Your task to perform on an android device: turn on translation in the chrome app Image 0: 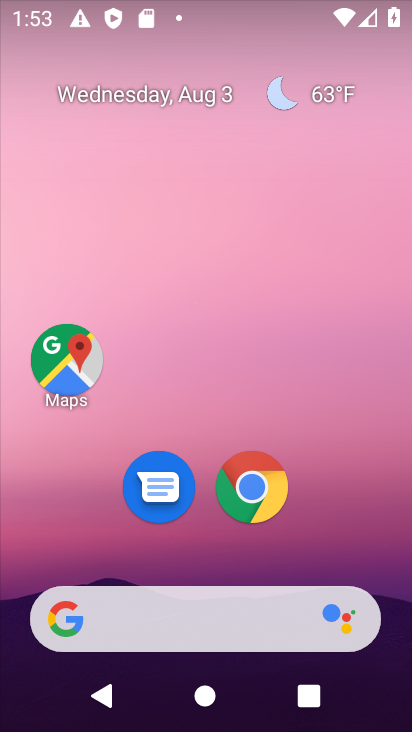
Step 0: click (260, 476)
Your task to perform on an android device: turn on translation in the chrome app Image 1: 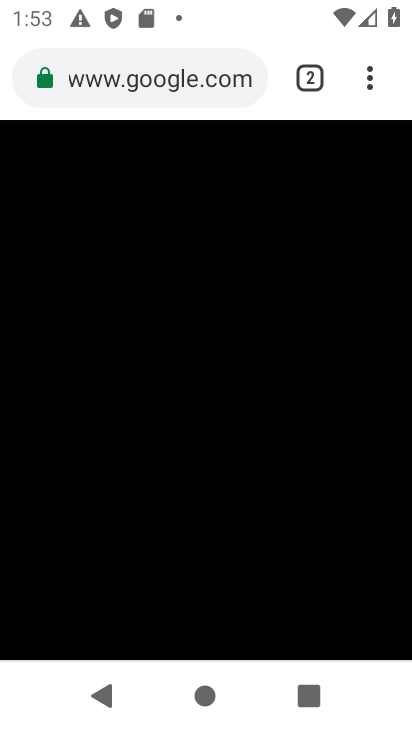
Step 1: drag from (369, 78) to (216, 539)
Your task to perform on an android device: turn on translation in the chrome app Image 2: 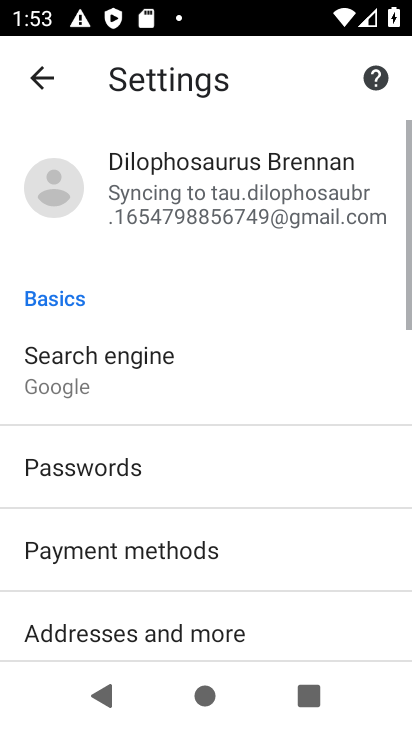
Step 2: drag from (229, 592) to (235, 124)
Your task to perform on an android device: turn on translation in the chrome app Image 3: 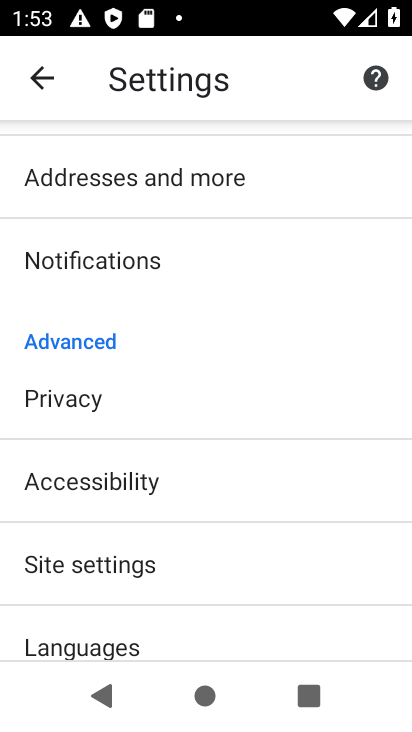
Step 3: click (71, 639)
Your task to perform on an android device: turn on translation in the chrome app Image 4: 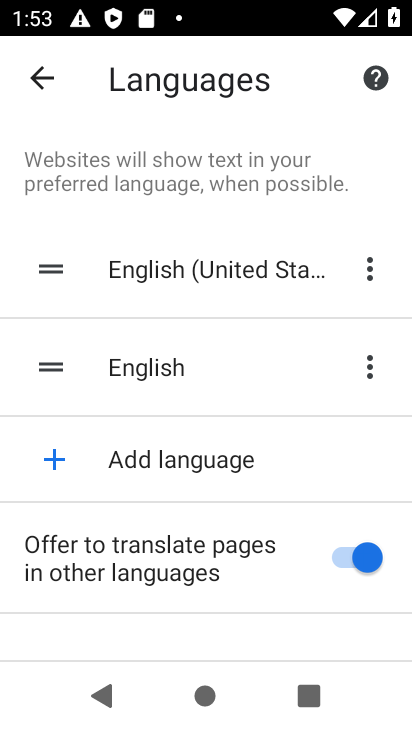
Step 4: task complete